Your task to perform on an android device: Show the shopping cart on walmart. Image 0: 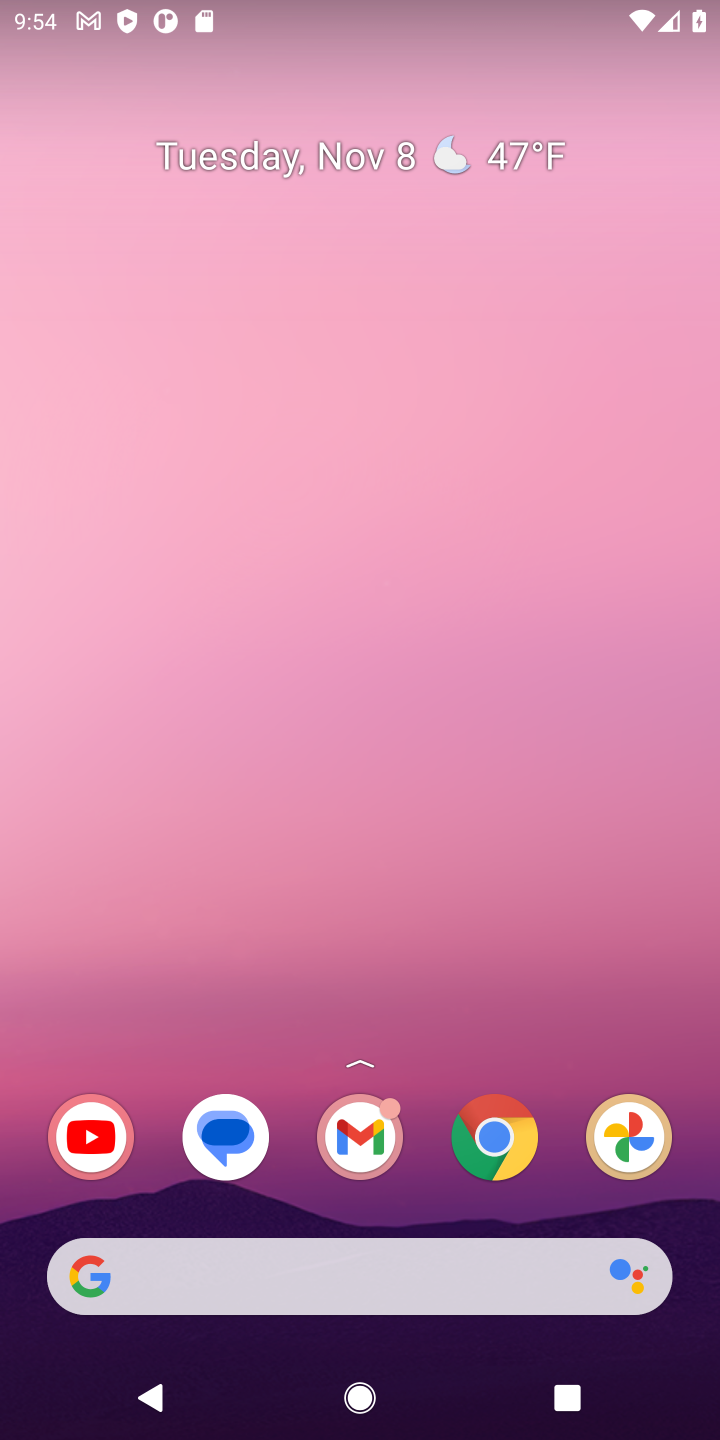
Step 0: click (499, 1136)
Your task to perform on an android device: Show the shopping cart on walmart. Image 1: 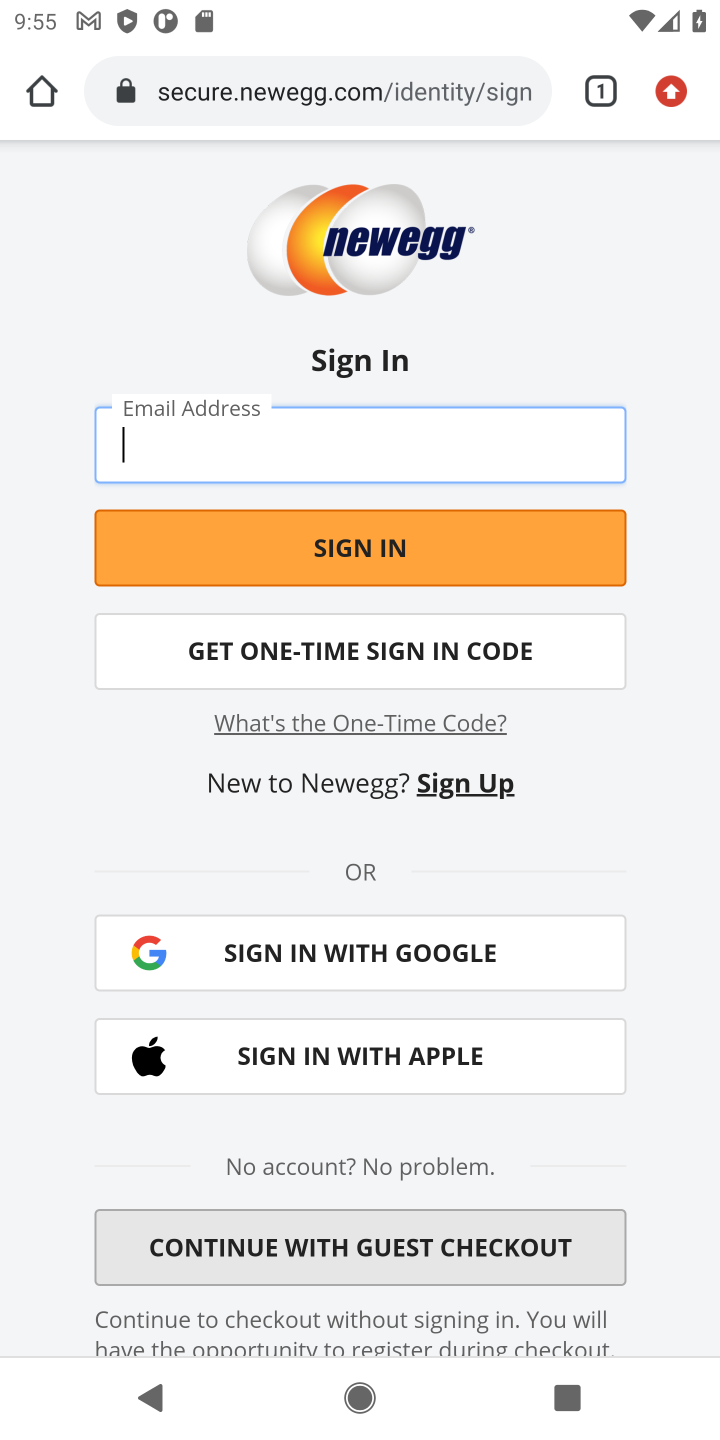
Step 1: click (391, 93)
Your task to perform on an android device: Show the shopping cart on walmart. Image 2: 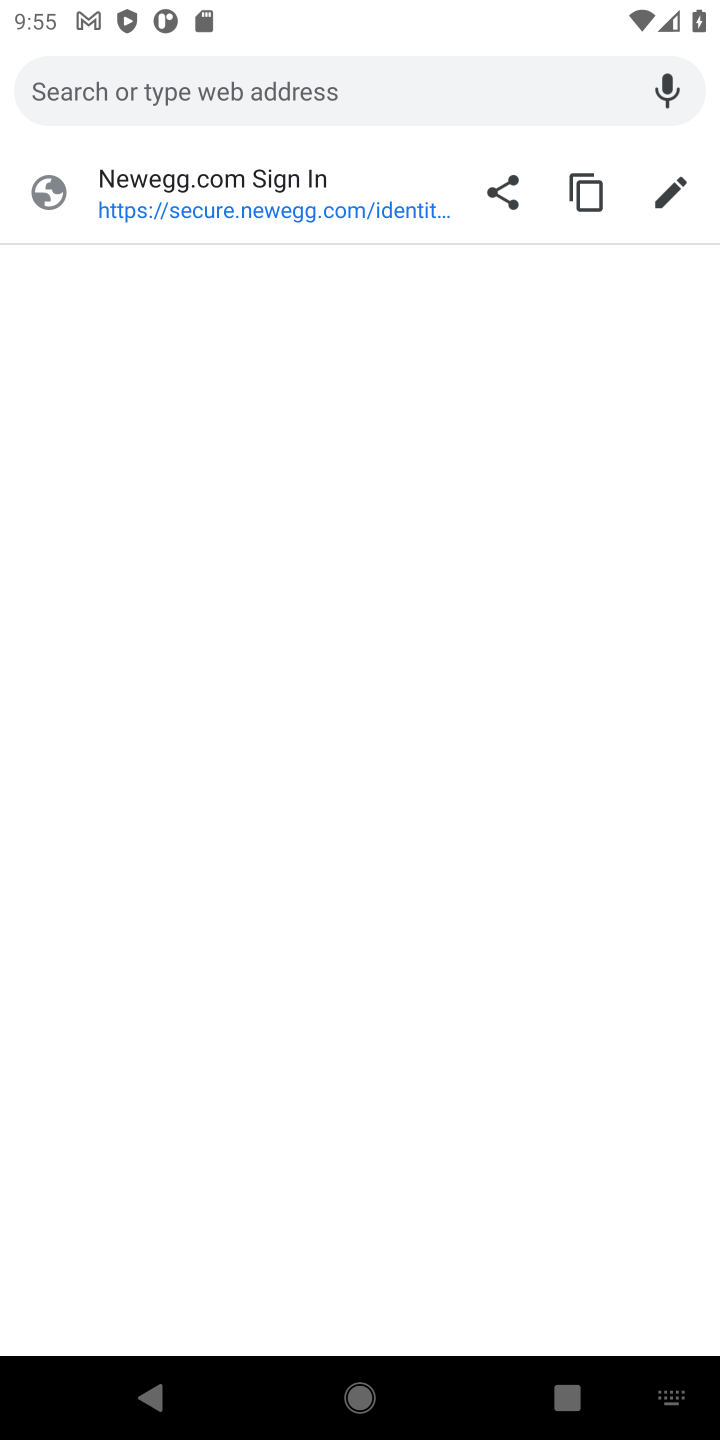
Step 2: type "walmart"
Your task to perform on an android device: Show the shopping cart on walmart. Image 3: 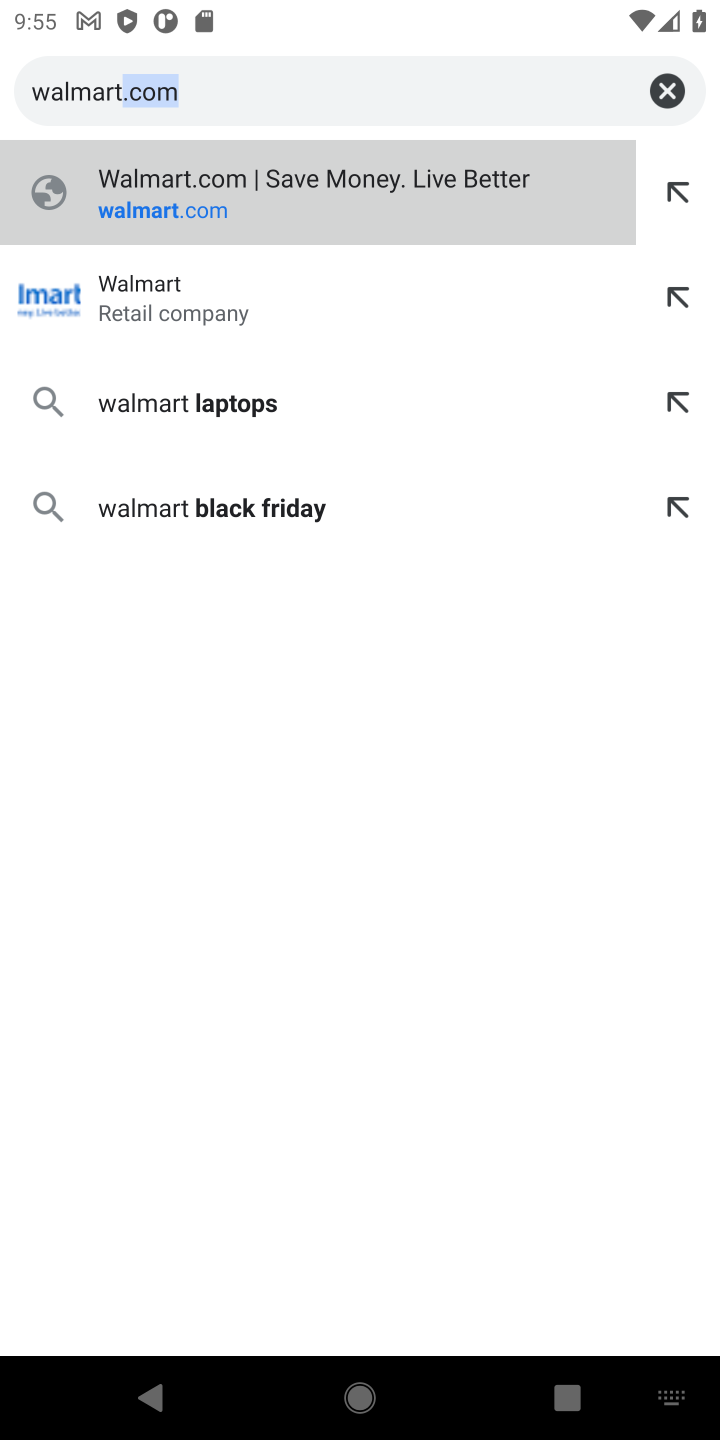
Step 3: click (173, 287)
Your task to perform on an android device: Show the shopping cart on walmart. Image 4: 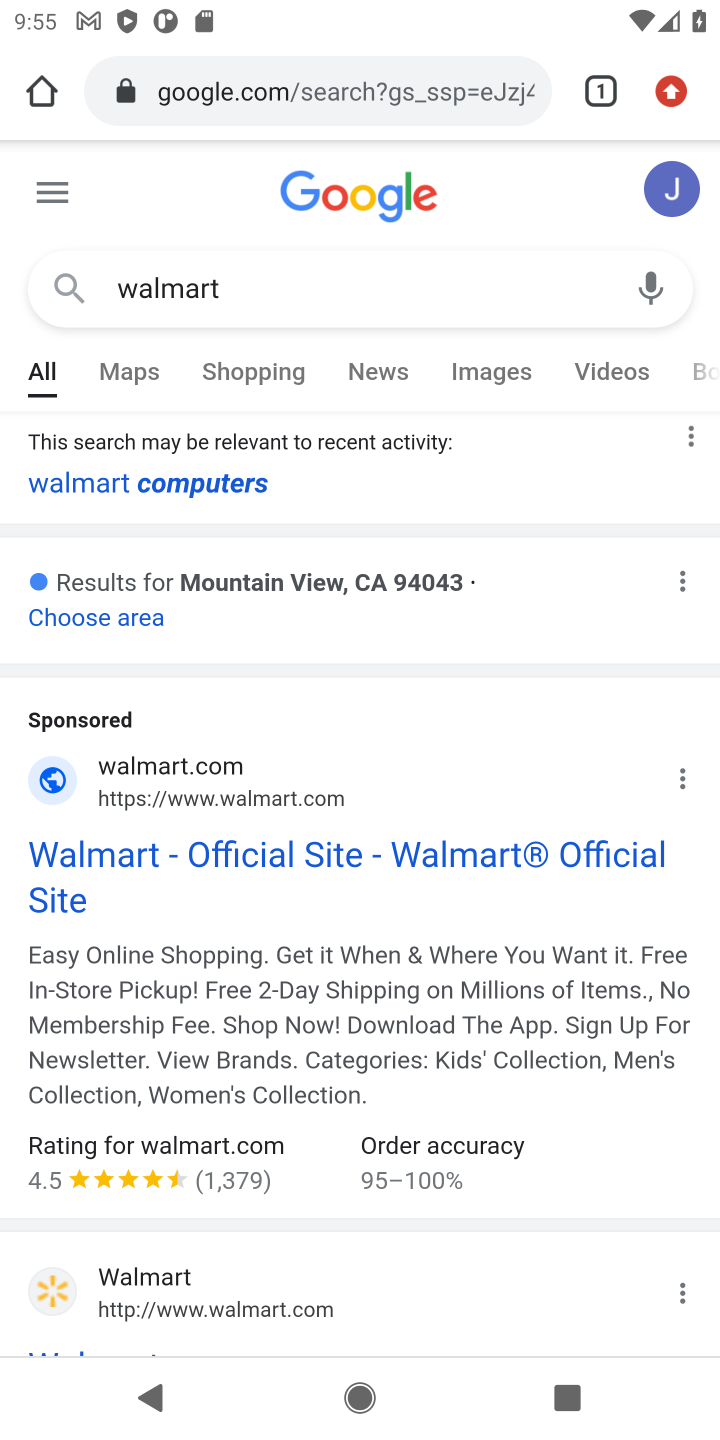
Step 4: click (201, 1312)
Your task to perform on an android device: Show the shopping cart on walmart. Image 5: 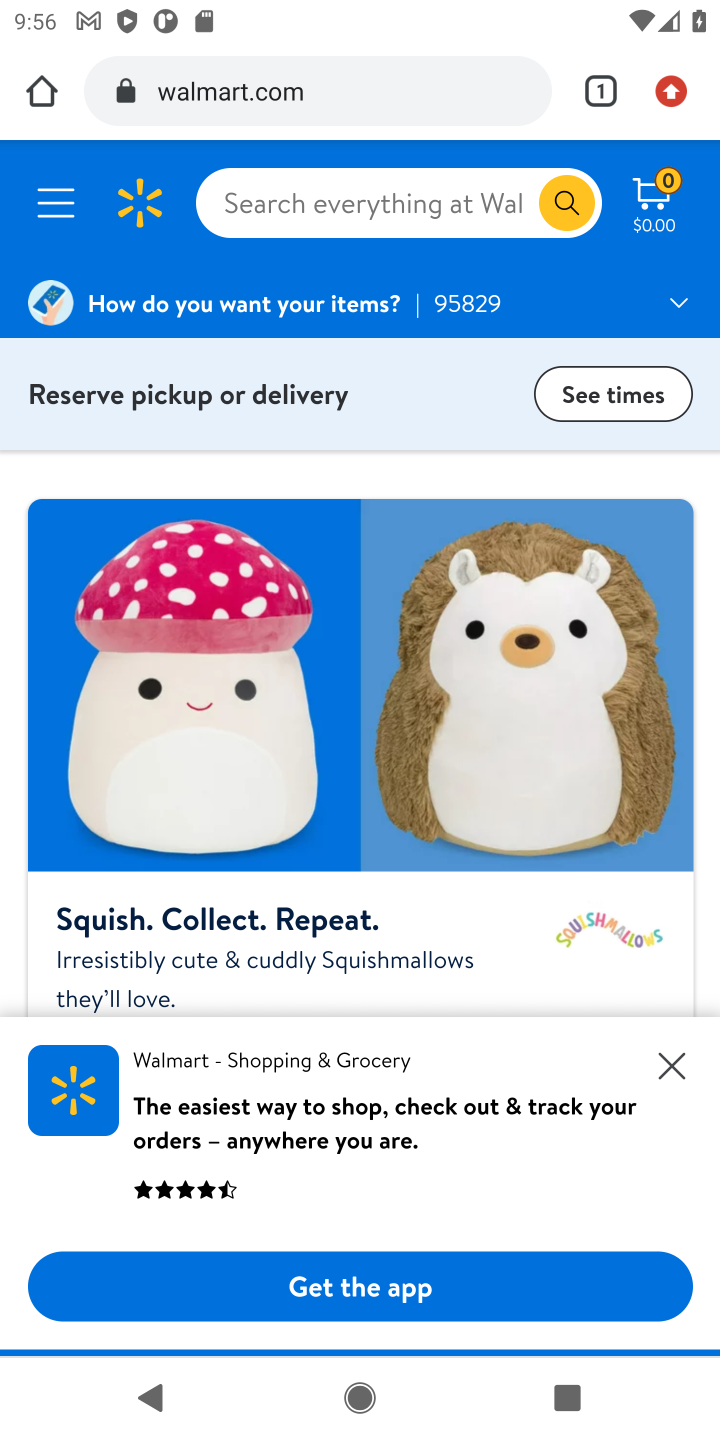
Step 5: click (694, 194)
Your task to perform on an android device: Show the shopping cart on walmart. Image 6: 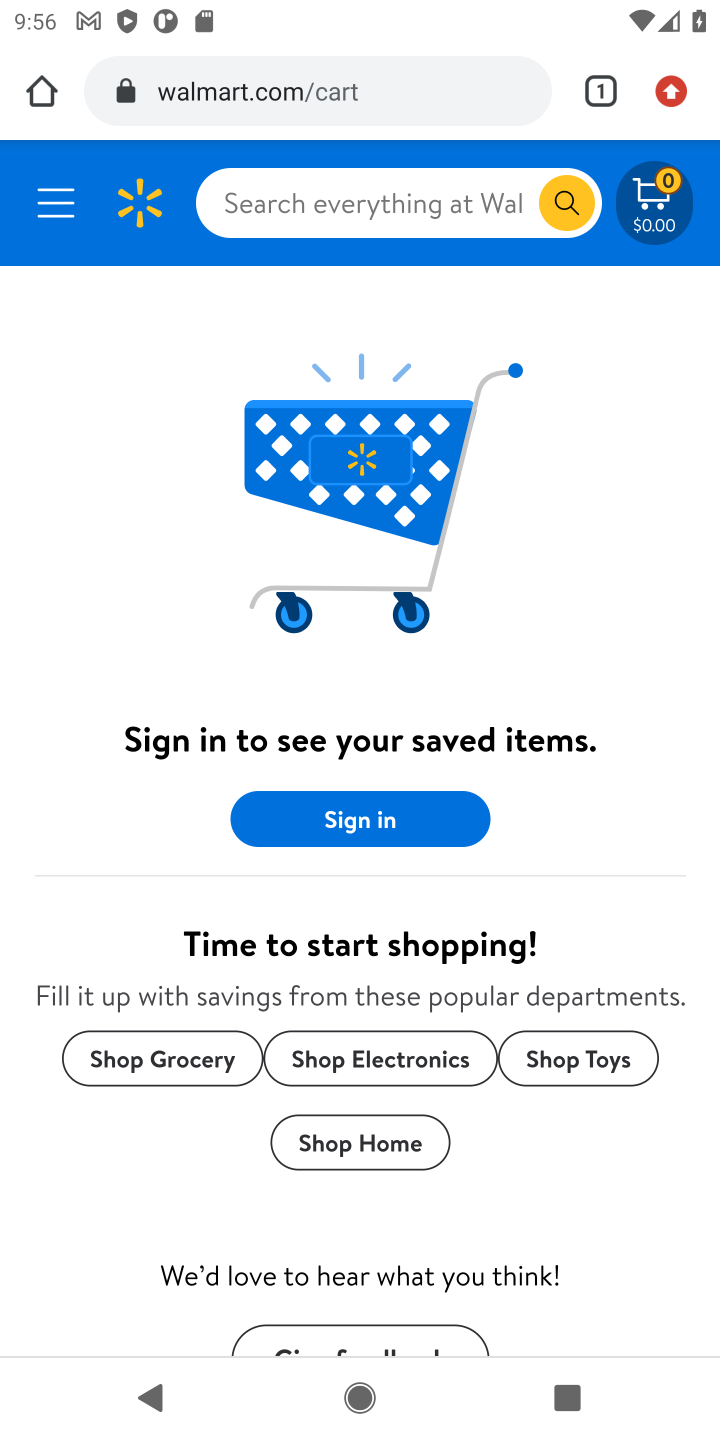
Step 6: task complete